Your task to perform on an android device: When is my next appointment? Image 0: 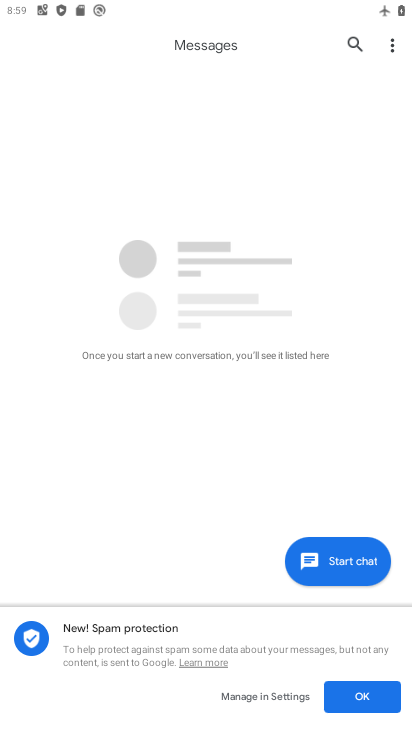
Step 0: press home button
Your task to perform on an android device: When is my next appointment? Image 1: 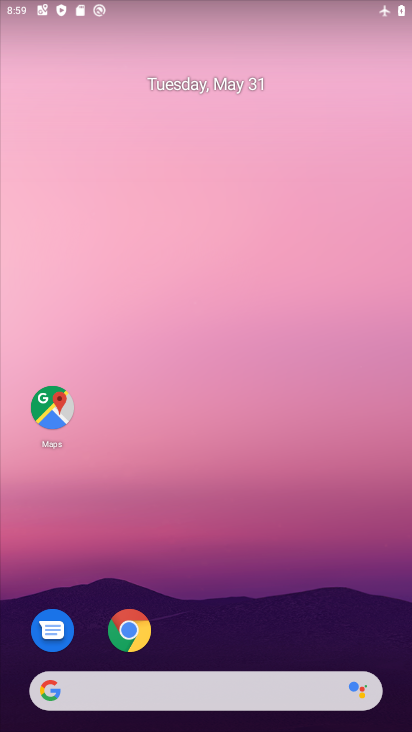
Step 1: drag from (265, 580) to (312, 152)
Your task to perform on an android device: When is my next appointment? Image 2: 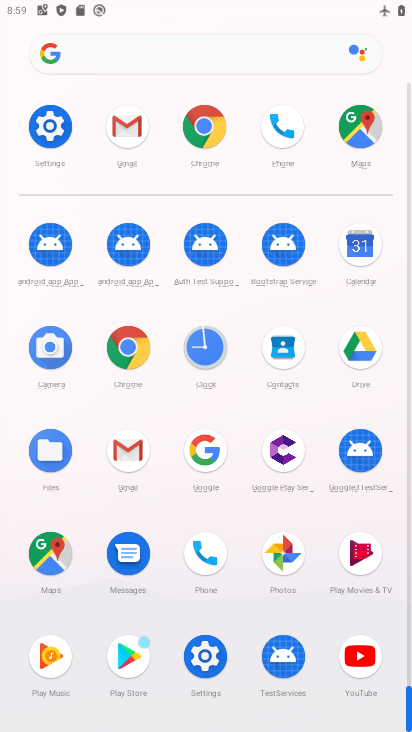
Step 2: click (360, 236)
Your task to perform on an android device: When is my next appointment? Image 3: 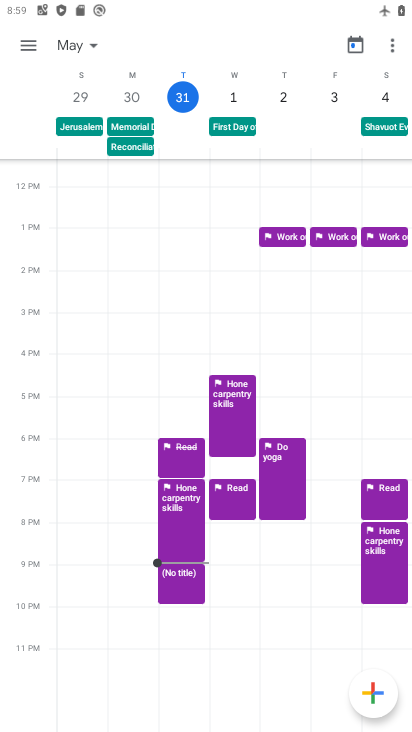
Step 3: click (285, 107)
Your task to perform on an android device: When is my next appointment? Image 4: 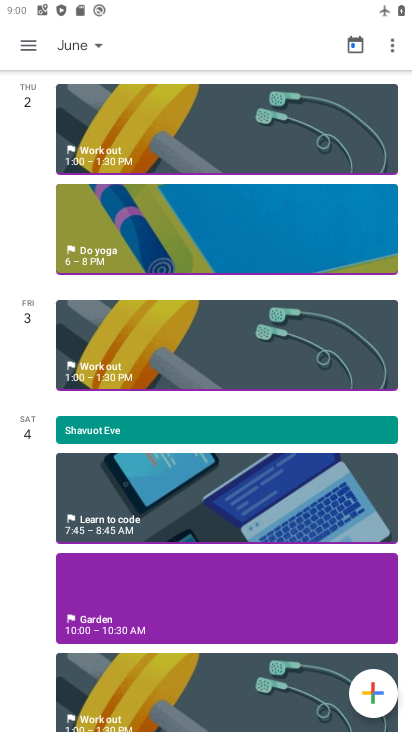
Step 4: task complete